Your task to perform on an android device: change the clock display to analog Image 0: 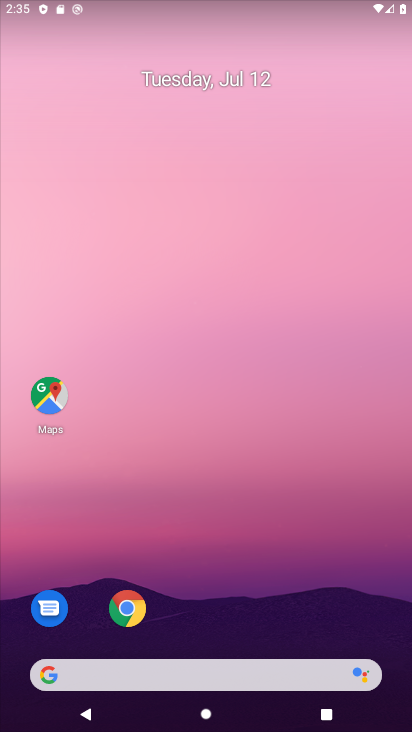
Step 0: drag from (241, 578) to (189, 111)
Your task to perform on an android device: change the clock display to analog Image 1: 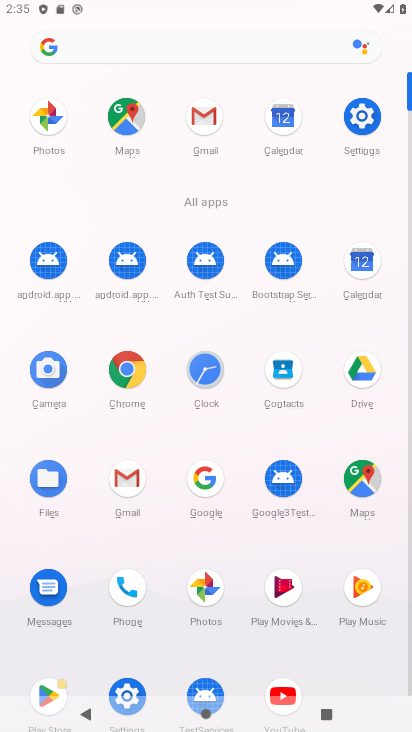
Step 1: click (205, 363)
Your task to perform on an android device: change the clock display to analog Image 2: 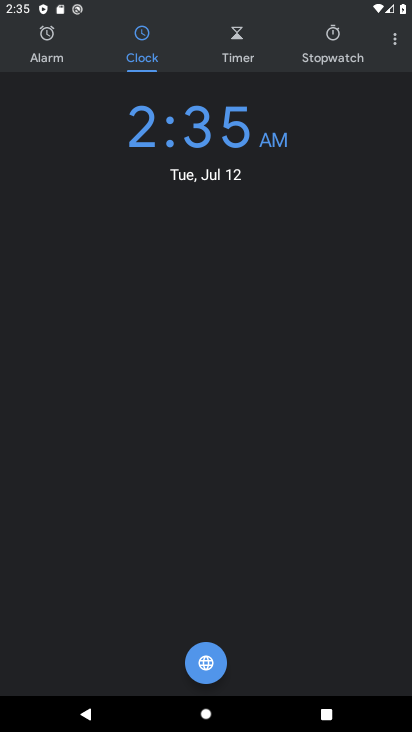
Step 2: click (399, 43)
Your task to perform on an android device: change the clock display to analog Image 3: 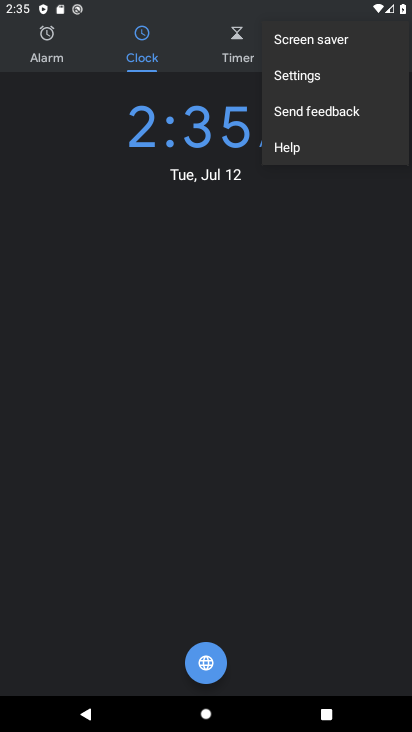
Step 3: click (311, 79)
Your task to perform on an android device: change the clock display to analog Image 4: 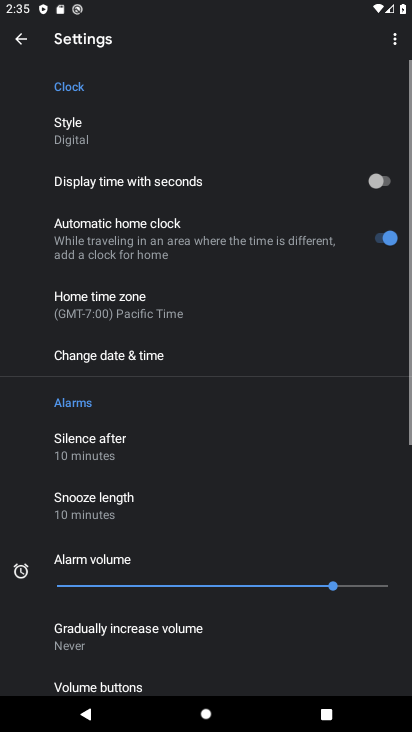
Step 4: click (99, 127)
Your task to perform on an android device: change the clock display to analog Image 5: 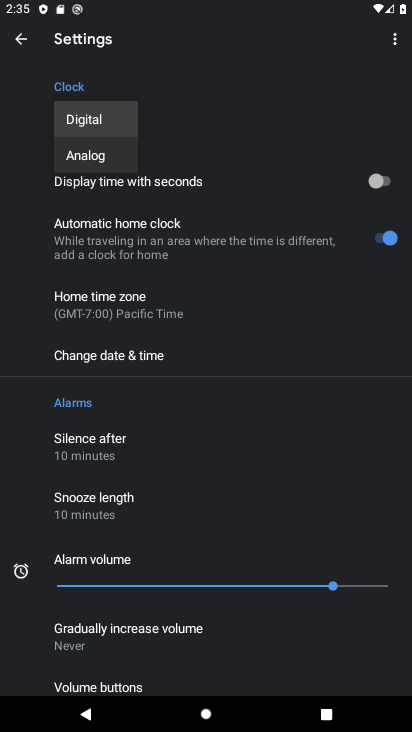
Step 5: click (100, 150)
Your task to perform on an android device: change the clock display to analog Image 6: 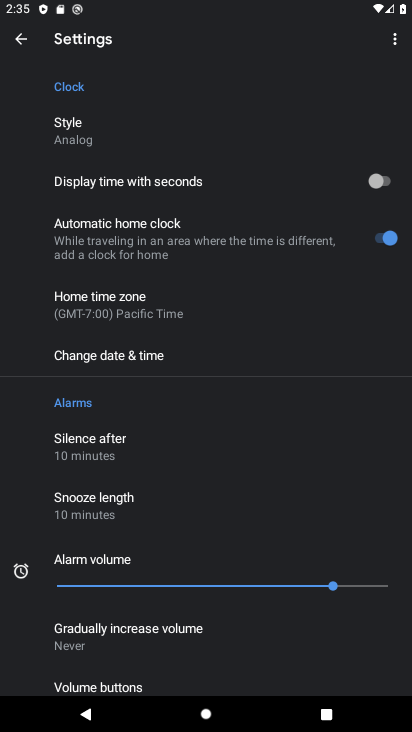
Step 6: task complete